Your task to perform on an android device: Toggle the flashlight Image 0: 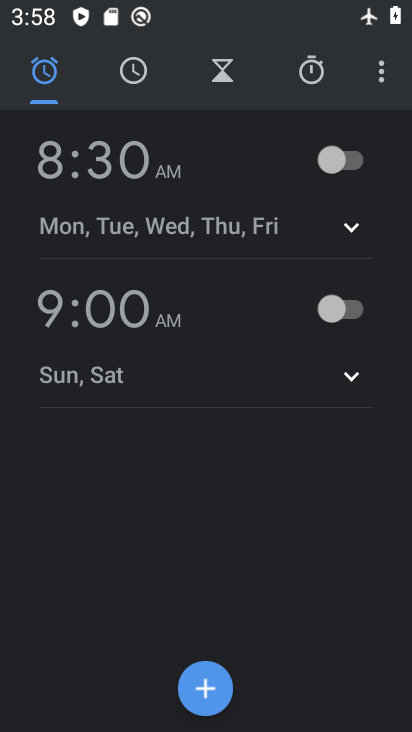
Step 0: drag from (340, 9) to (248, 679)
Your task to perform on an android device: Toggle the flashlight Image 1: 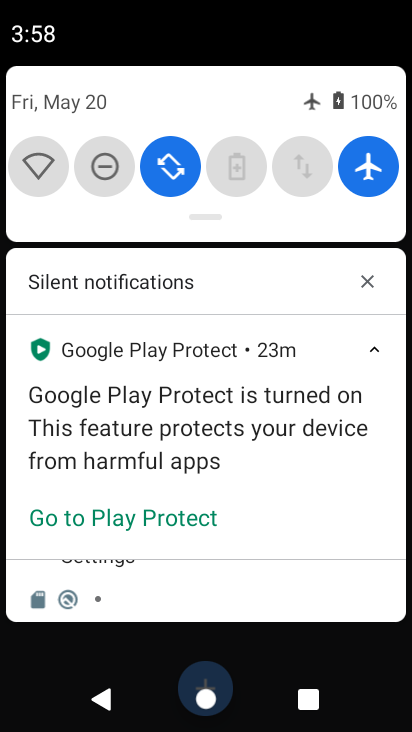
Step 1: drag from (204, 188) to (329, 670)
Your task to perform on an android device: Toggle the flashlight Image 2: 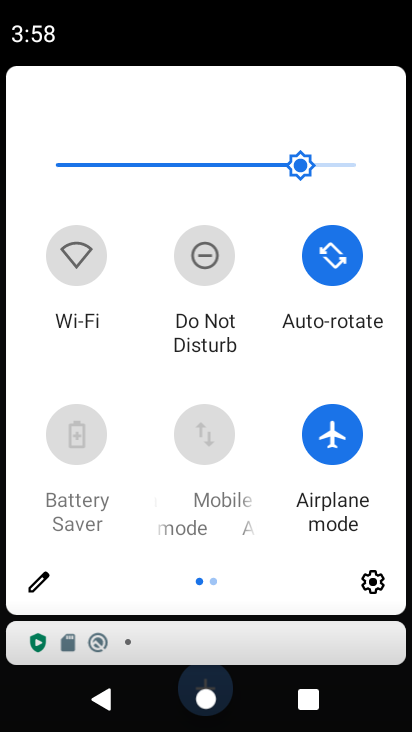
Step 2: click (44, 574)
Your task to perform on an android device: Toggle the flashlight Image 3: 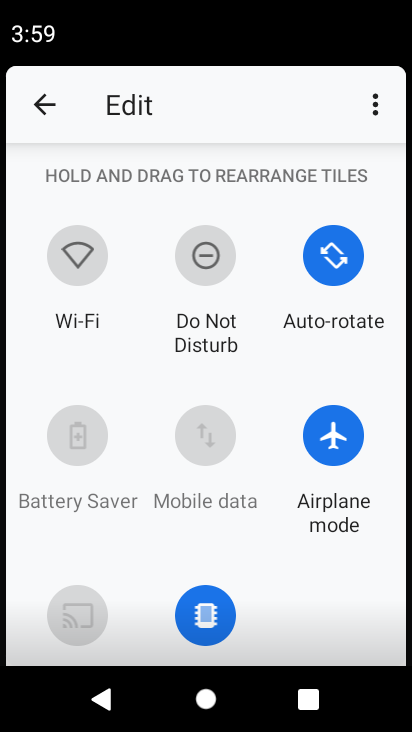
Step 3: task complete